Your task to perform on an android device: turn on bluetooth scan Image 0: 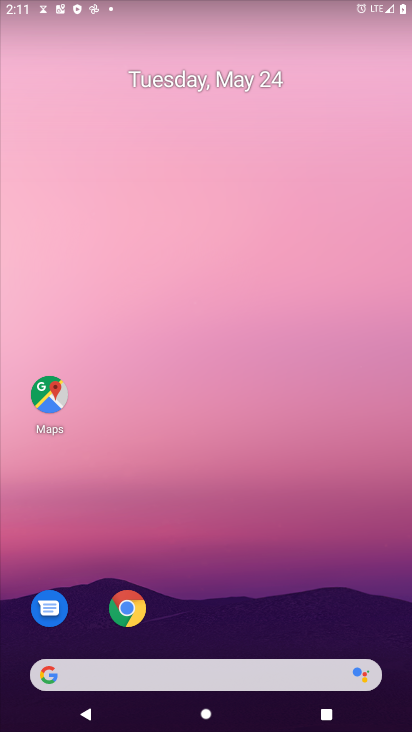
Step 0: drag from (251, 682) to (139, 124)
Your task to perform on an android device: turn on bluetooth scan Image 1: 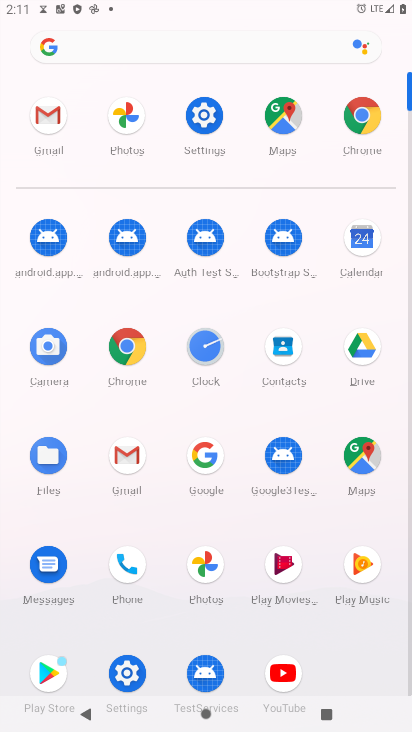
Step 1: click (194, 140)
Your task to perform on an android device: turn on bluetooth scan Image 2: 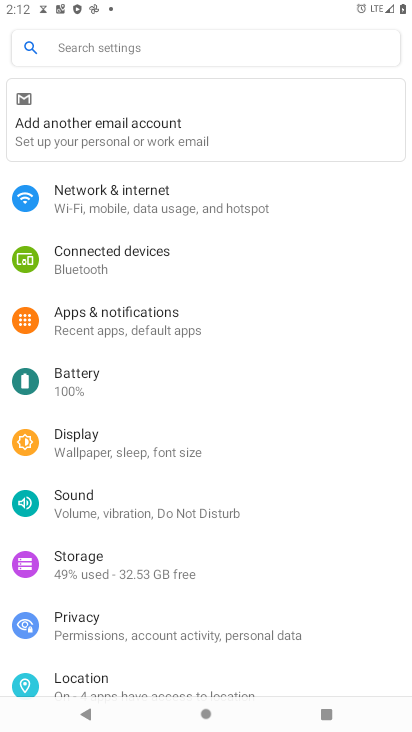
Step 2: click (130, 48)
Your task to perform on an android device: turn on bluetooth scan Image 3: 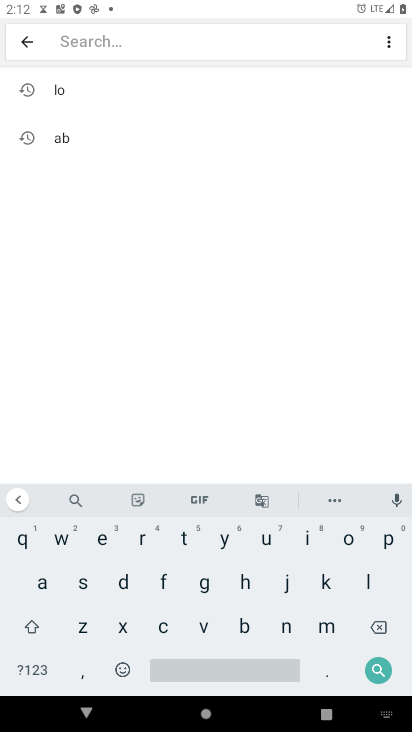
Step 3: click (367, 584)
Your task to perform on an android device: turn on bluetooth scan Image 4: 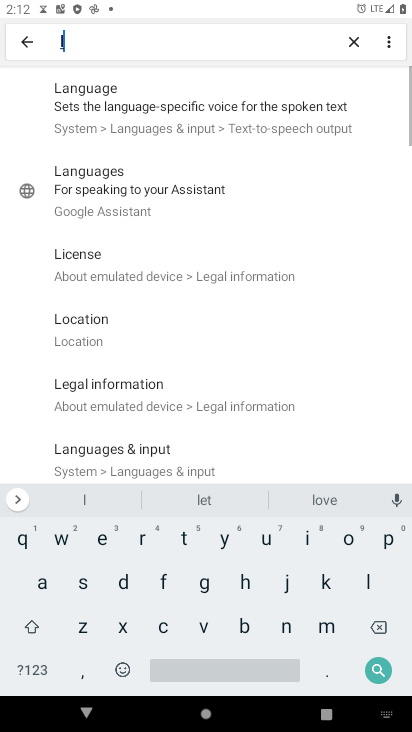
Step 4: click (349, 538)
Your task to perform on an android device: turn on bluetooth scan Image 5: 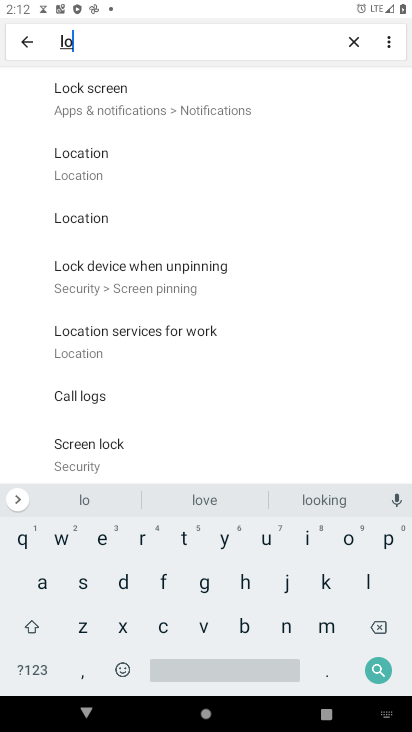
Step 5: click (109, 157)
Your task to perform on an android device: turn on bluetooth scan Image 6: 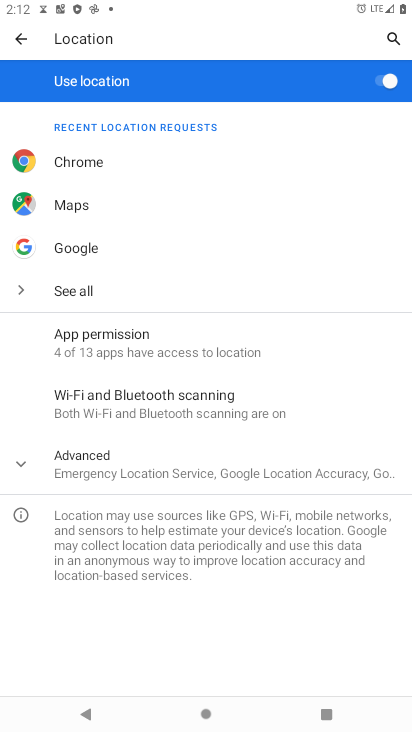
Step 6: click (41, 284)
Your task to perform on an android device: turn on bluetooth scan Image 7: 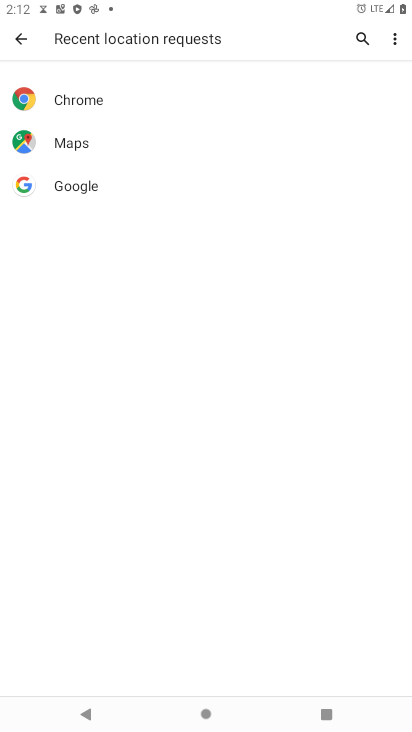
Step 7: click (23, 38)
Your task to perform on an android device: turn on bluetooth scan Image 8: 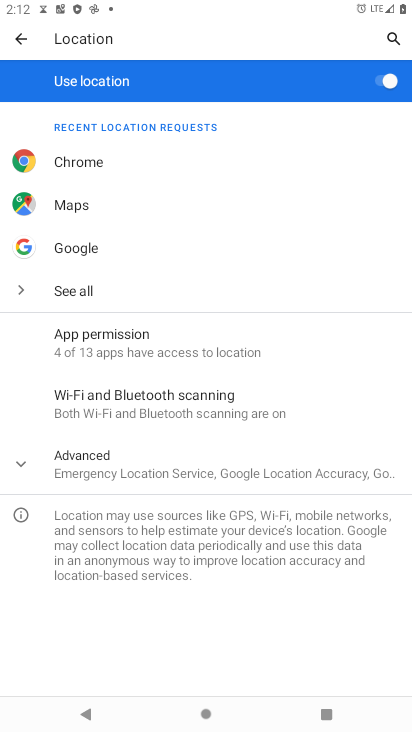
Step 8: click (185, 416)
Your task to perform on an android device: turn on bluetooth scan Image 9: 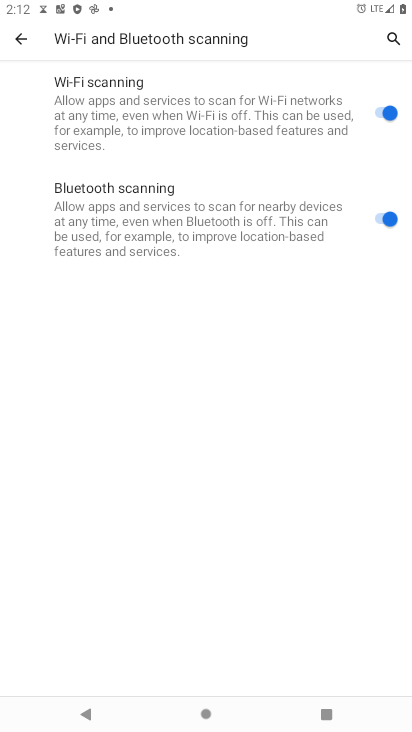
Step 9: task complete